Your task to perform on an android device: Go to internet settings Image 0: 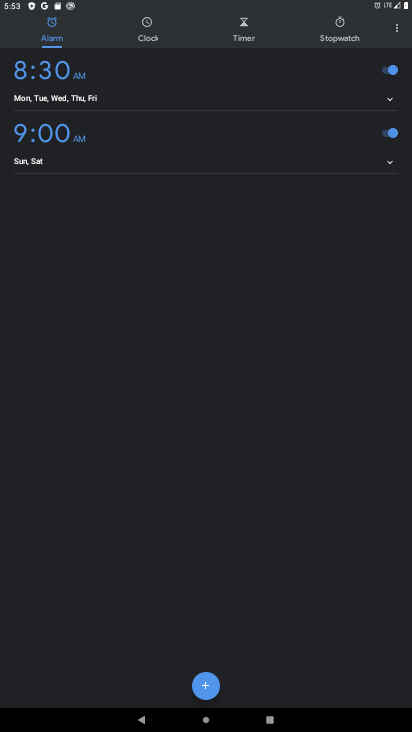
Step 0: click (395, 26)
Your task to perform on an android device: Go to internet settings Image 1: 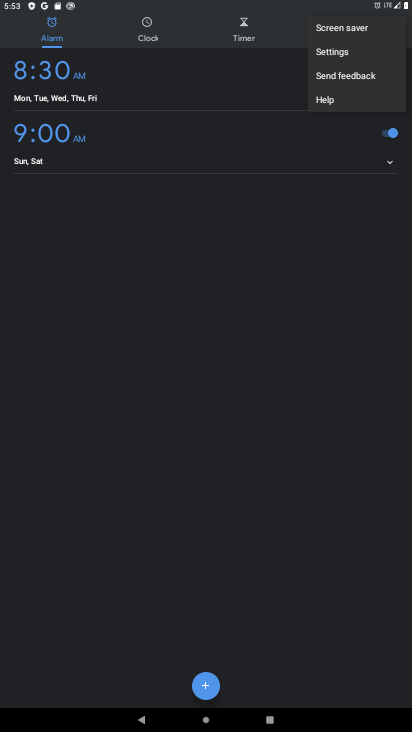
Step 1: click (339, 48)
Your task to perform on an android device: Go to internet settings Image 2: 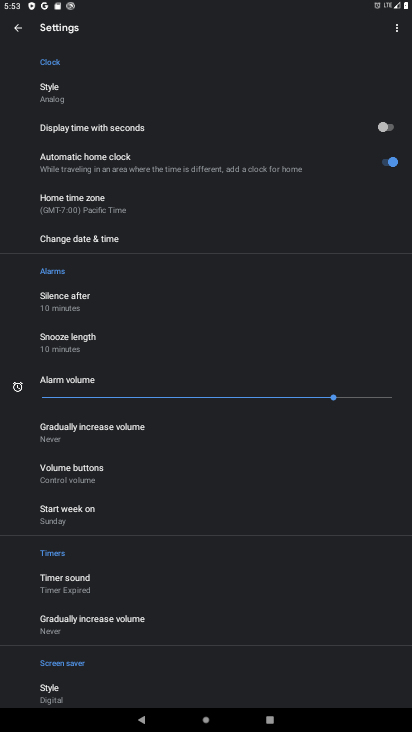
Step 2: press home button
Your task to perform on an android device: Go to internet settings Image 3: 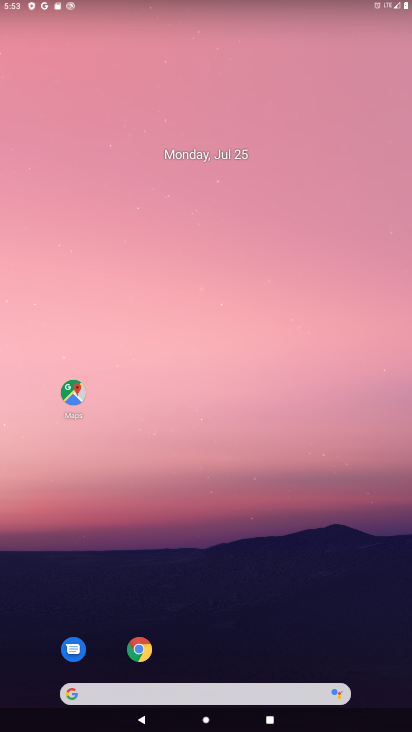
Step 3: drag from (147, 599) to (213, 41)
Your task to perform on an android device: Go to internet settings Image 4: 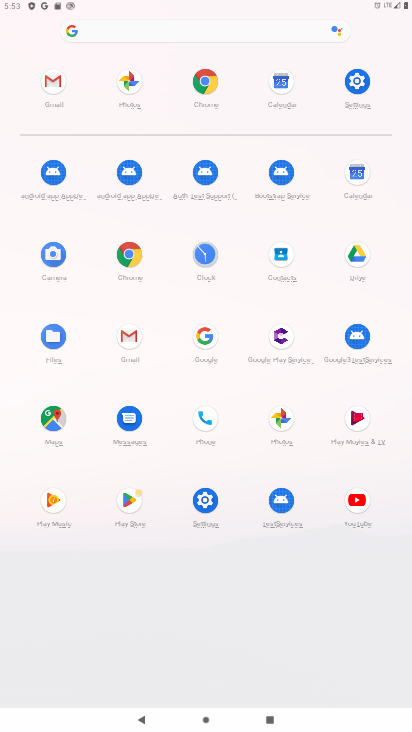
Step 4: click (370, 76)
Your task to perform on an android device: Go to internet settings Image 5: 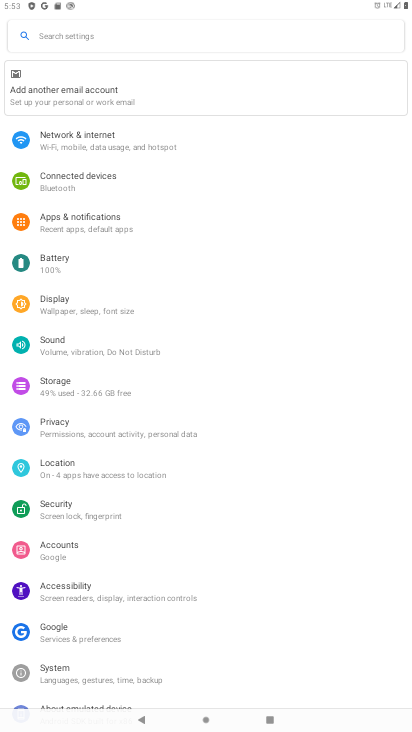
Step 5: click (203, 139)
Your task to perform on an android device: Go to internet settings Image 6: 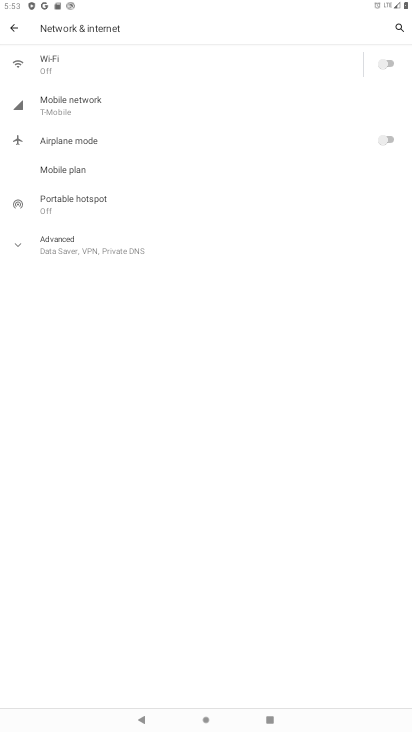
Step 6: task complete